Your task to perform on an android device: turn smart compose on in the gmail app Image 0: 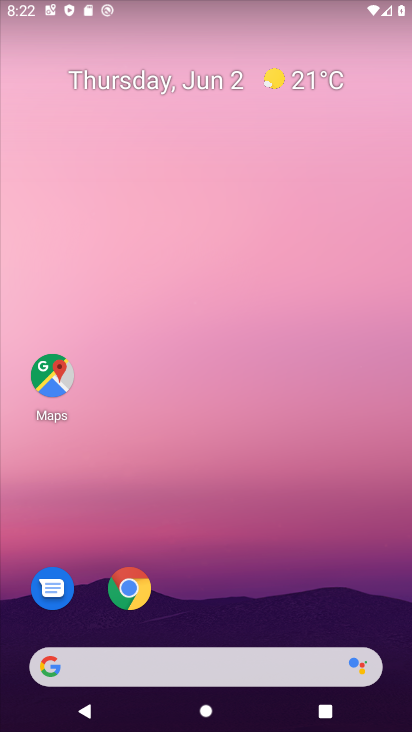
Step 0: drag from (174, 646) to (160, 248)
Your task to perform on an android device: turn smart compose on in the gmail app Image 1: 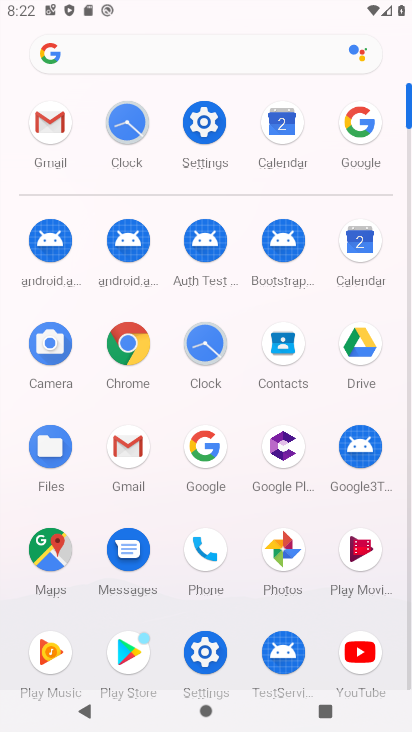
Step 1: click (130, 442)
Your task to perform on an android device: turn smart compose on in the gmail app Image 2: 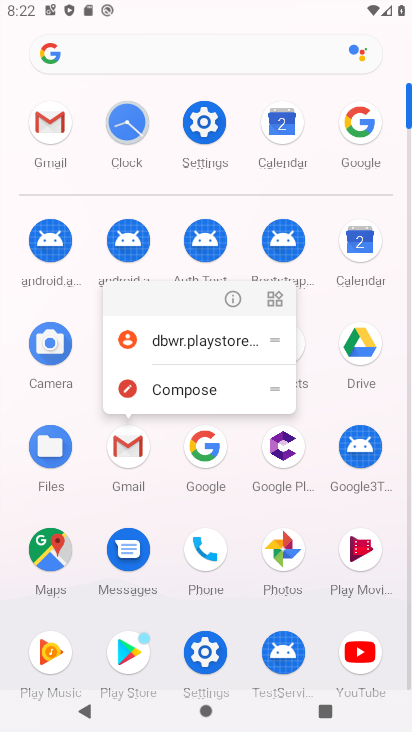
Step 2: click (130, 442)
Your task to perform on an android device: turn smart compose on in the gmail app Image 3: 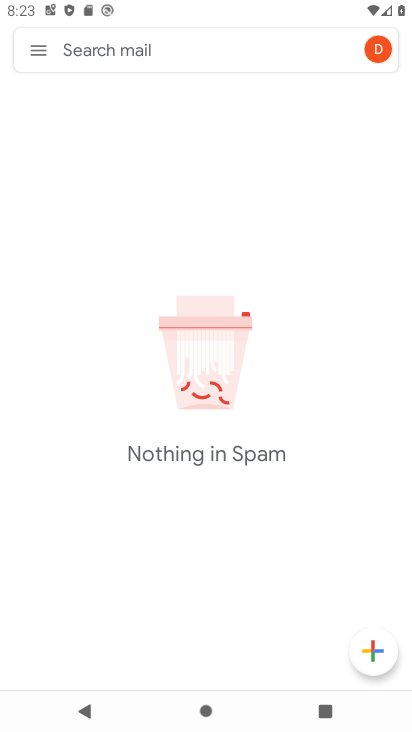
Step 3: click (38, 60)
Your task to perform on an android device: turn smart compose on in the gmail app Image 4: 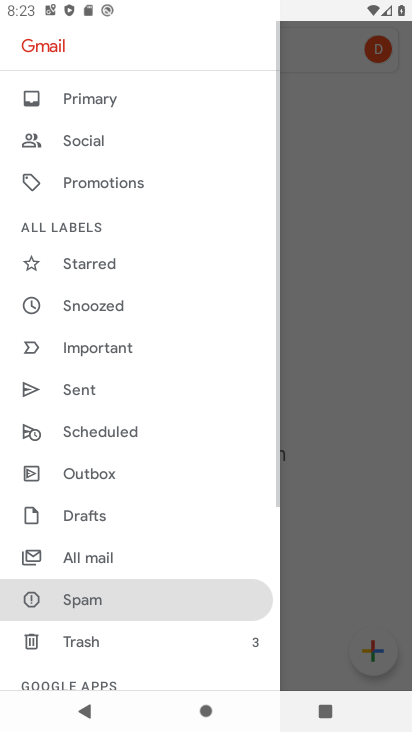
Step 4: drag from (90, 628) to (92, 255)
Your task to perform on an android device: turn smart compose on in the gmail app Image 5: 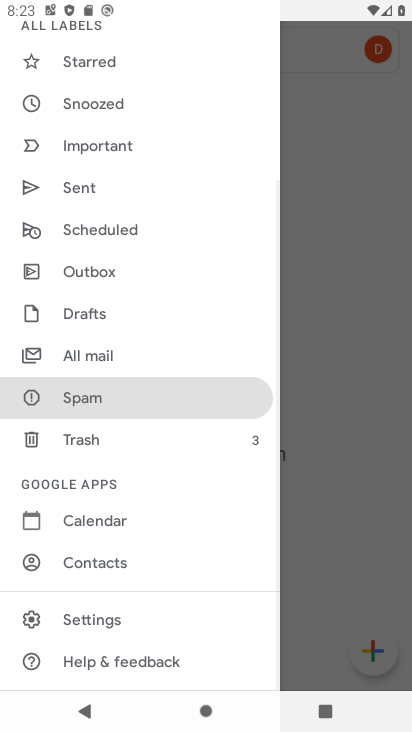
Step 5: click (57, 615)
Your task to perform on an android device: turn smart compose on in the gmail app Image 6: 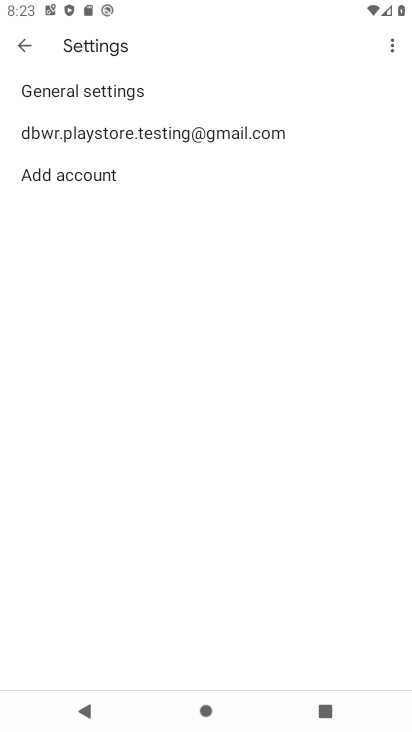
Step 6: click (127, 134)
Your task to perform on an android device: turn smart compose on in the gmail app Image 7: 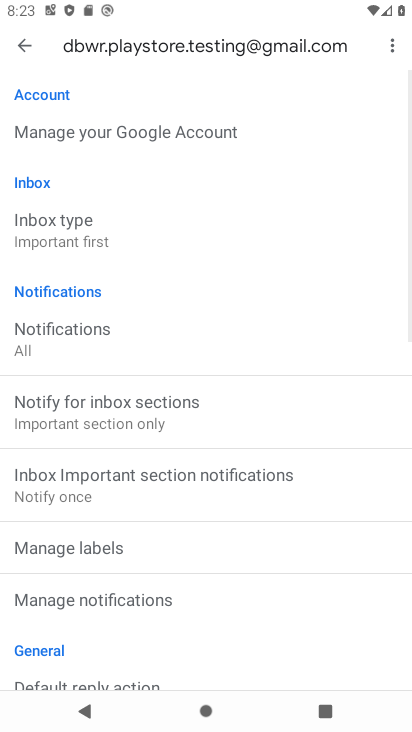
Step 7: task complete